Your task to perform on an android device: install app "Duolingo: language lessons" Image 0: 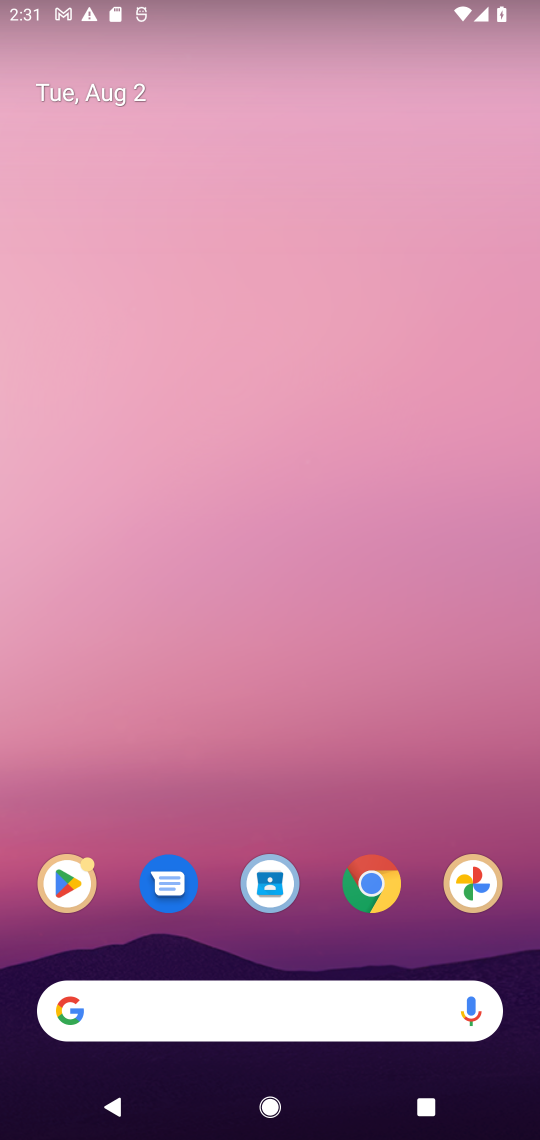
Step 0: press home button
Your task to perform on an android device: install app "Duolingo: language lessons" Image 1: 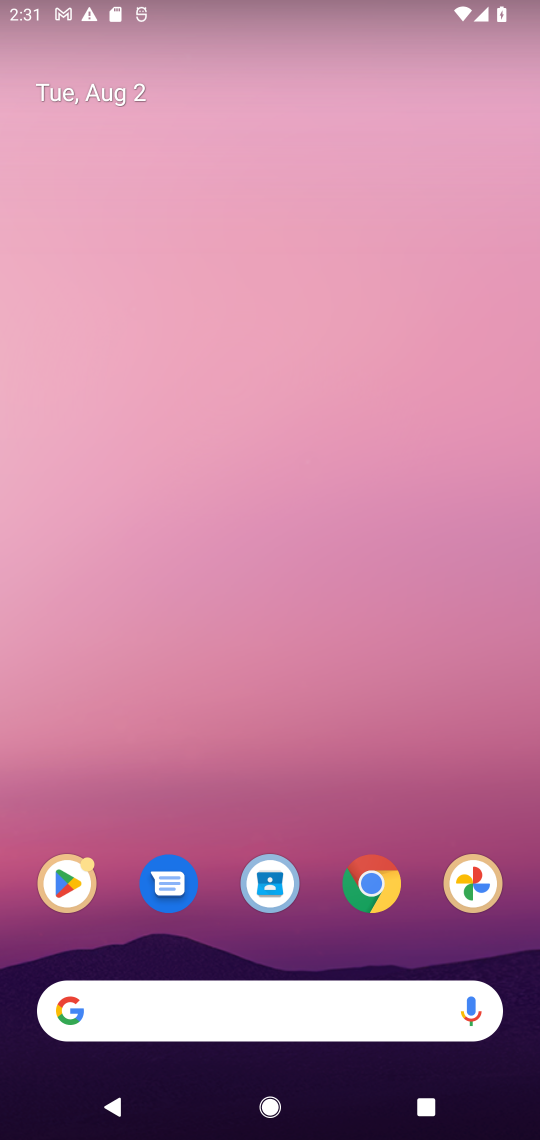
Step 1: drag from (347, 717) to (176, 71)
Your task to perform on an android device: install app "Duolingo: language lessons" Image 2: 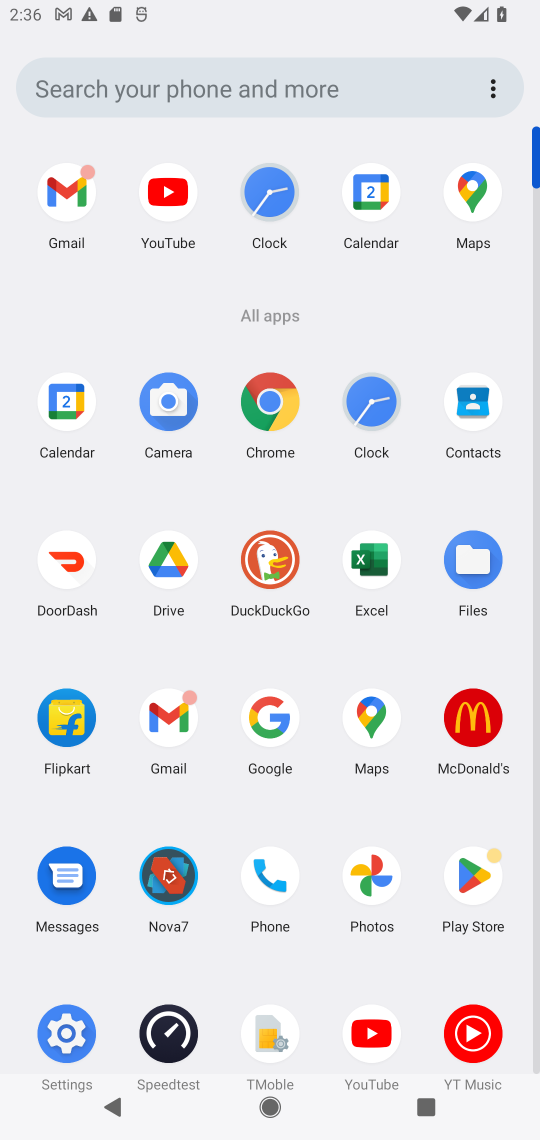
Step 2: click (463, 904)
Your task to perform on an android device: install app "Duolingo: language lessons" Image 3: 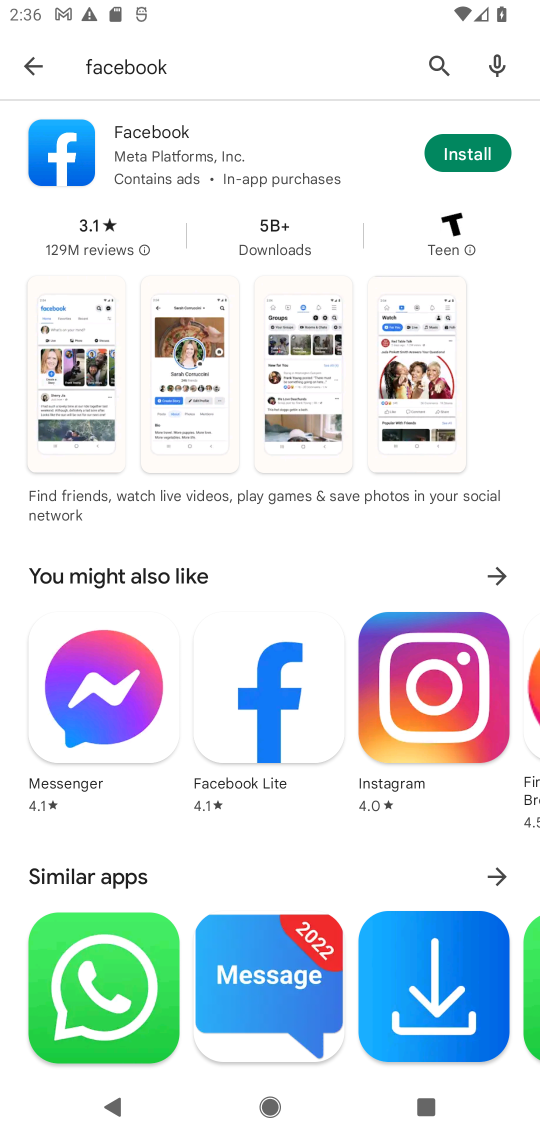
Step 3: click (446, 73)
Your task to perform on an android device: install app "Duolingo: language lessons" Image 4: 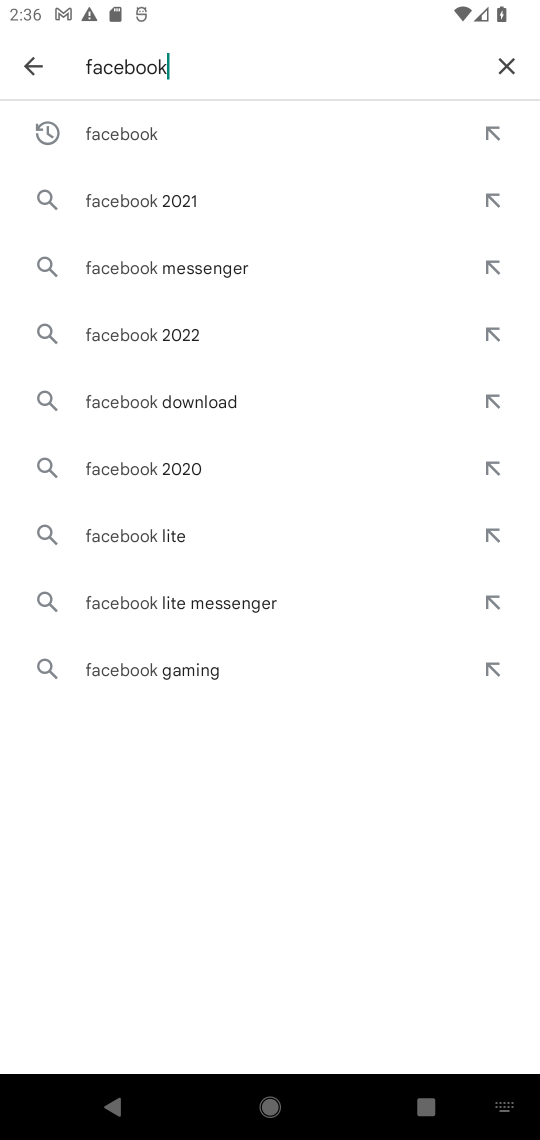
Step 4: click (512, 59)
Your task to perform on an android device: install app "Duolingo: language lessons" Image 5: 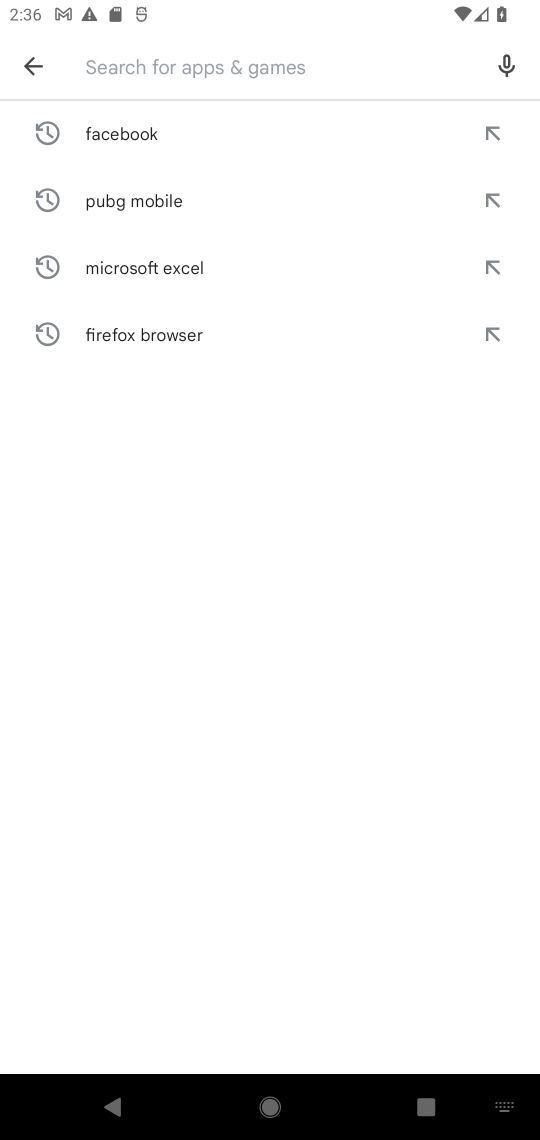
Step 5: type ""Duolingo: language lessons""
Your task to perform on an android device: install app "Duolingo: language lessons" Image 6: 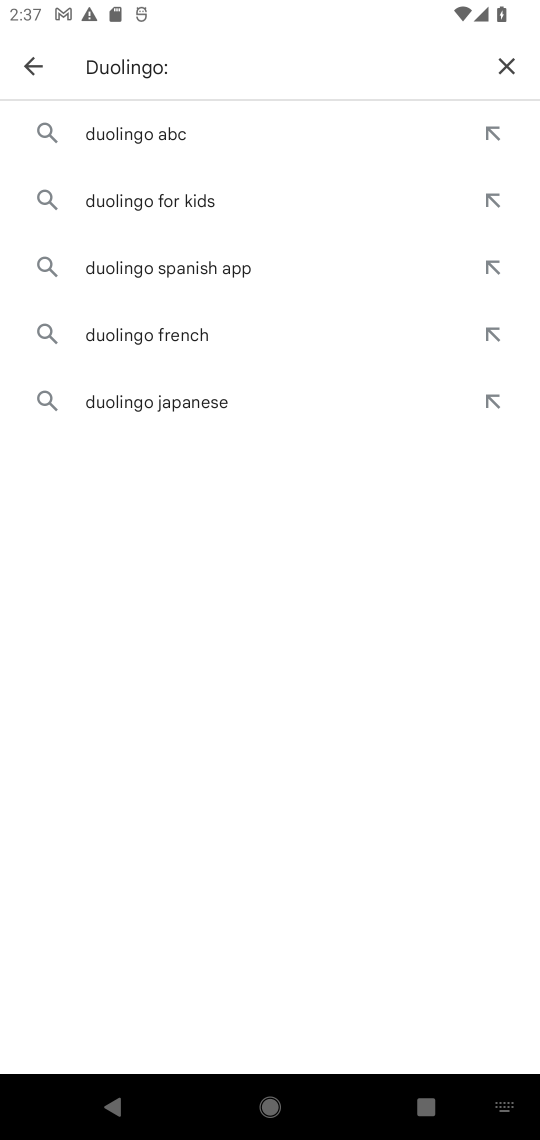
Step 6: click (149, 149)
Your task to perform on an android device: install app "Duolingo: language lessons" Image 7: 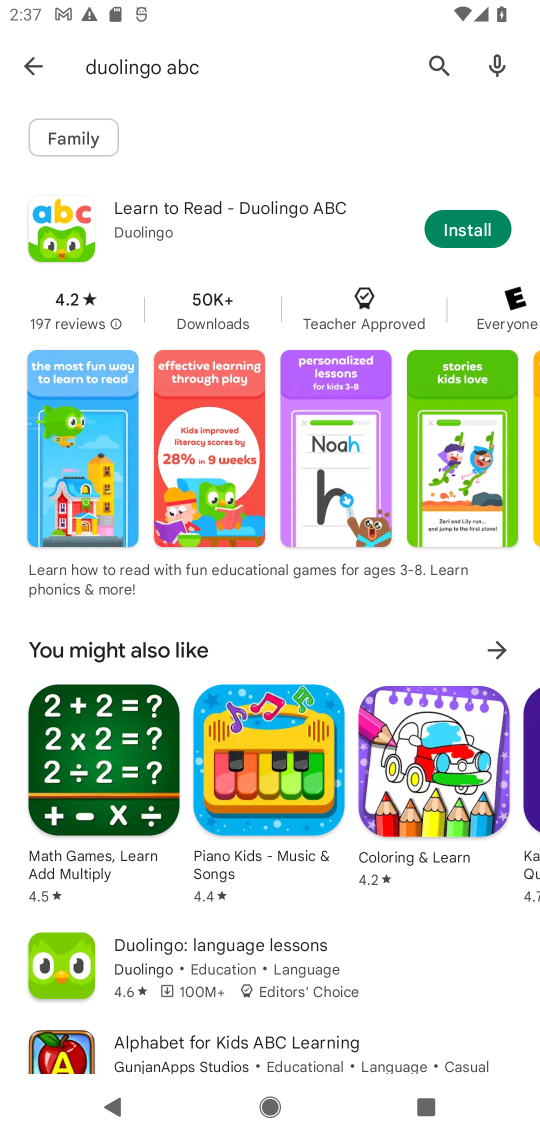
Step 7: click (465, 231)
Your task to perform on an android device: install app "Duolingo: language lessons" Image 8: 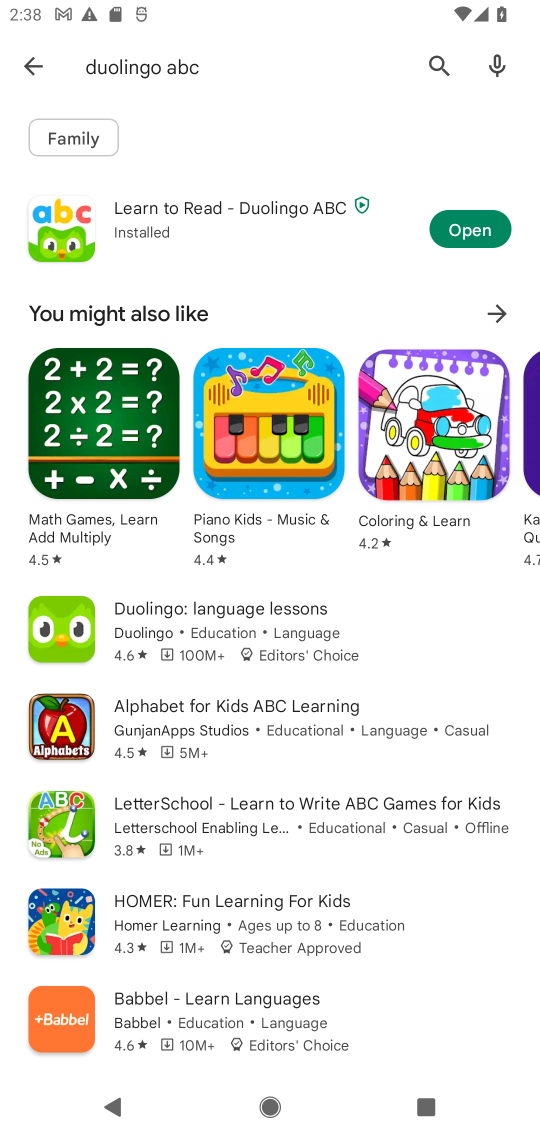
Step 8: task complete